Your task to perform on an android device: toggle improve location accuracy Image 0: 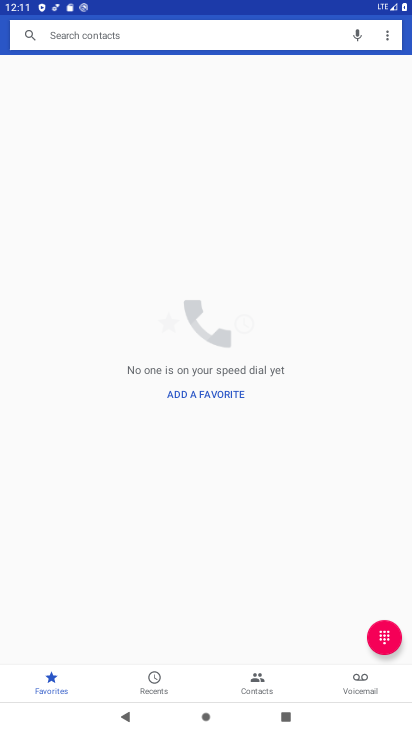
Step 0: press home button
Your task to perform on an android device: toggle improve location accuracy Image 1: 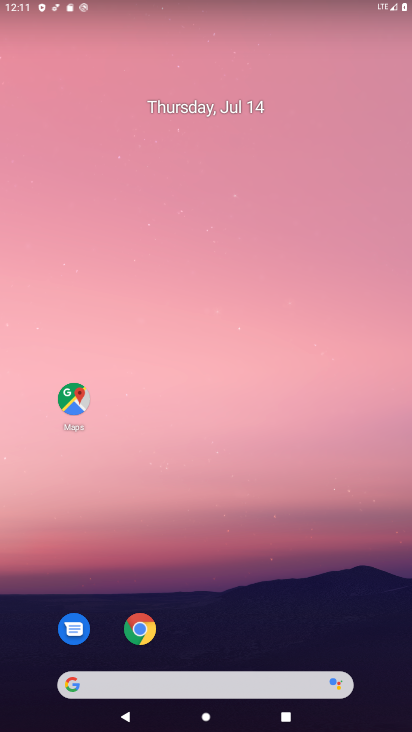
Step 1: drag from (300, 578) to (201, 79)
Your task to perform on an android device: toggle improve location accuracy Image 2: 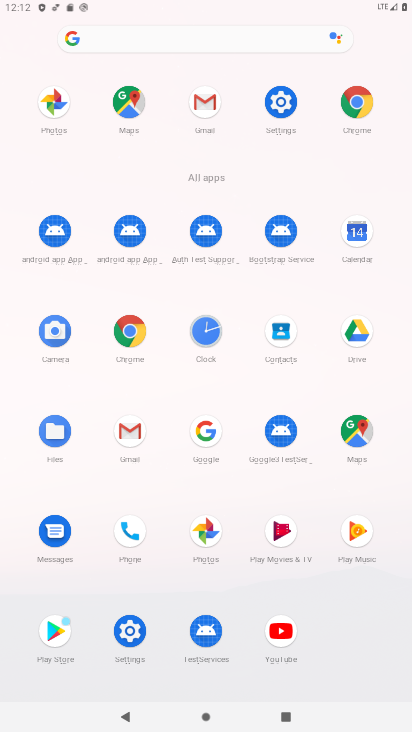
Step 2: click (286, 104)
Your task to perform on an android device: toggle improve location accuracy Image 3: 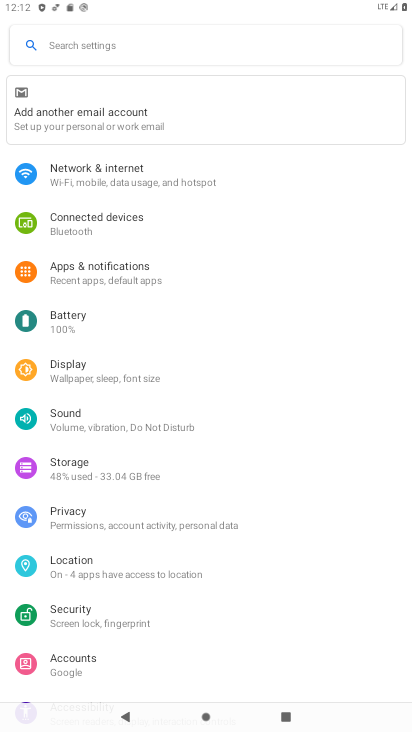
Step 3: click (128, 566)
Your task to perform on an android device: toggle improve location accuracy Image 4: 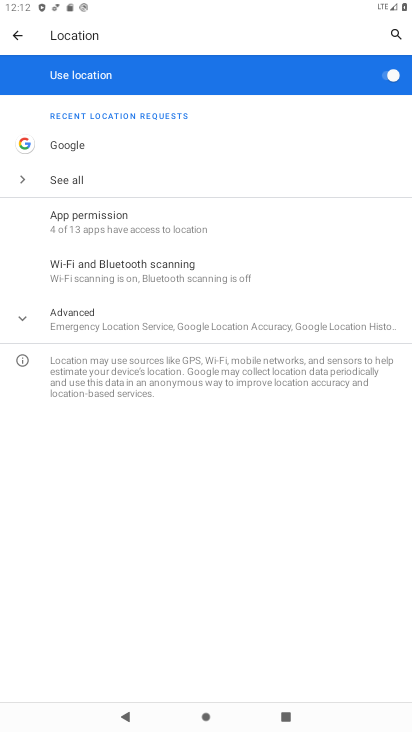
Step 4: click (89, 323)
Your task to perform on an android device: toggle improve location accuracy Image 5: 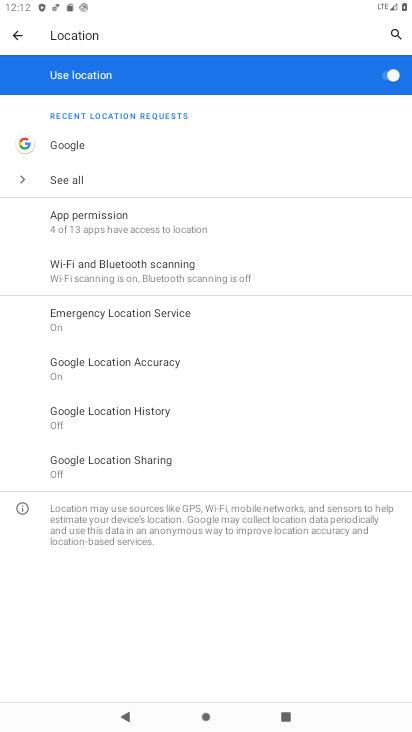
Step 5: click (134, 364)
Your task to perform on an android device: toggle improve location accuracy Image 6: 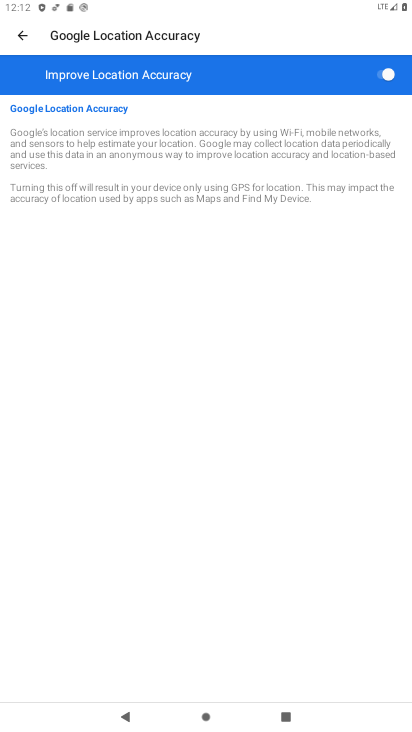
Step 6: click (389, 76)
Your task to perform on an android device: toggle improve location accuracy Image 7: 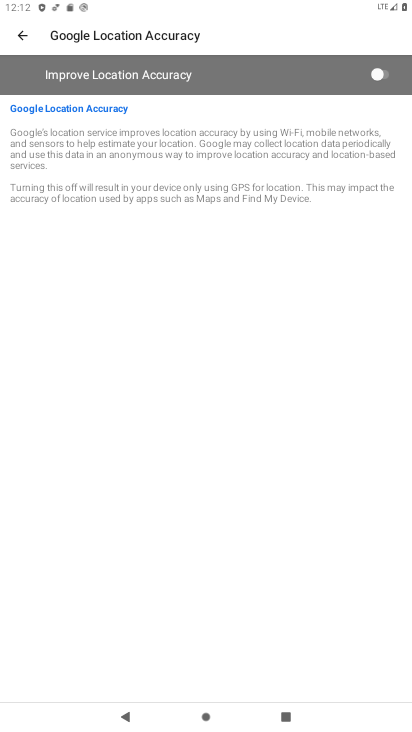
Step 7: task complete